Your task to perform on an android device: choose inbox layout in the gmail app Image 0: 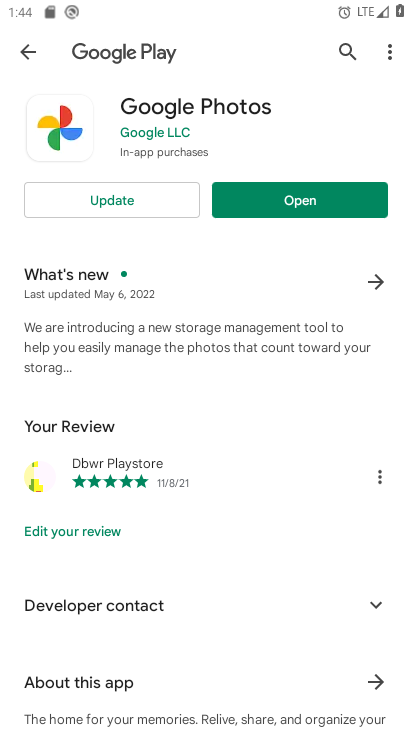
Step 0: press home button
Your task to perform on an android device: choose inbox layout in the gmail app Image 1: 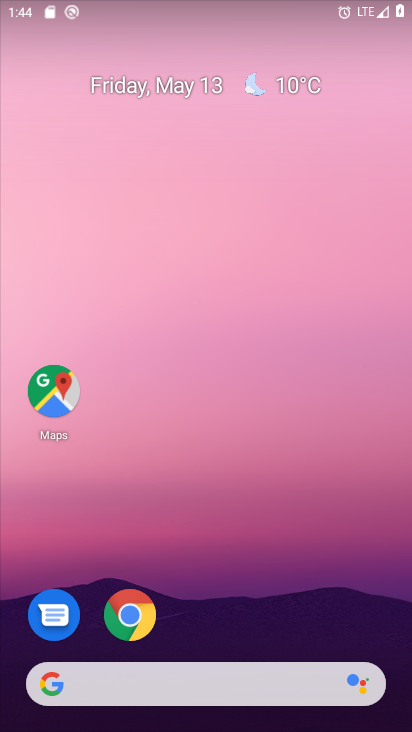
Step 1: drag from (263, 624) to (340, 45)
Your task to perform on an android device: choose inbox layout in the gmail app Image 2: 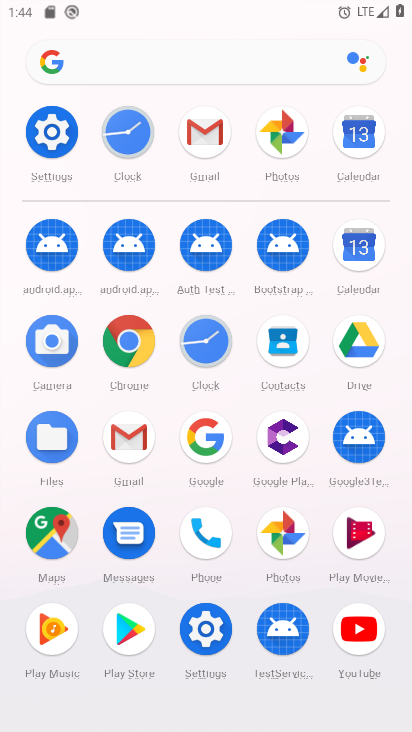
Step 2: click (211, 127)
Your task to perform on an android device: choose inbox layout in the gmail app Image 3: 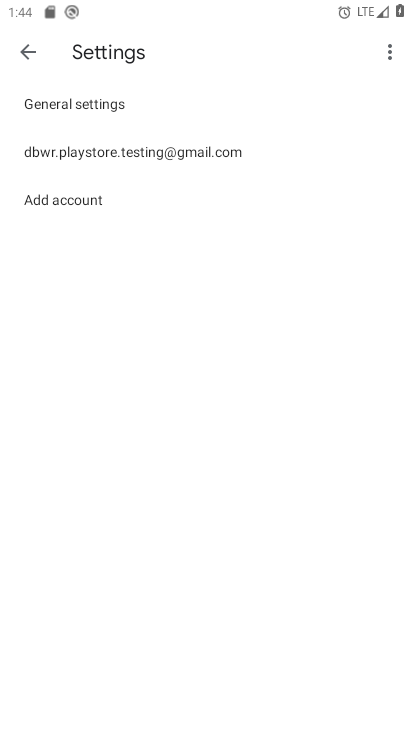
Step 3: click (159, 142)
Your task to perform on an android device: choose inbox layout in the gmail app Image 4: 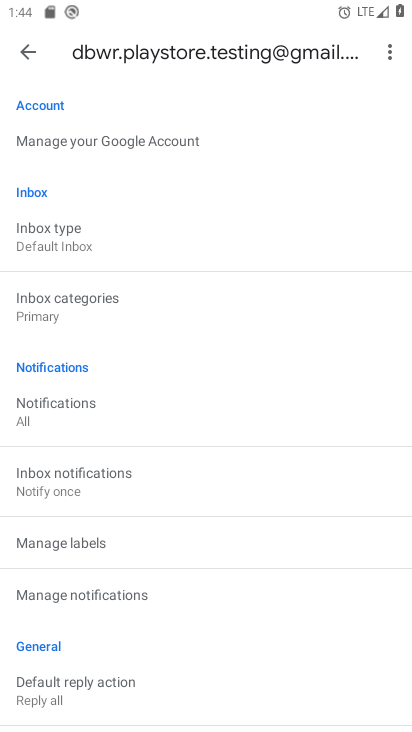
Step 4: click (74, 230)
Your task to perform on an android device: choose inbox layout in the gmail app Image 5: 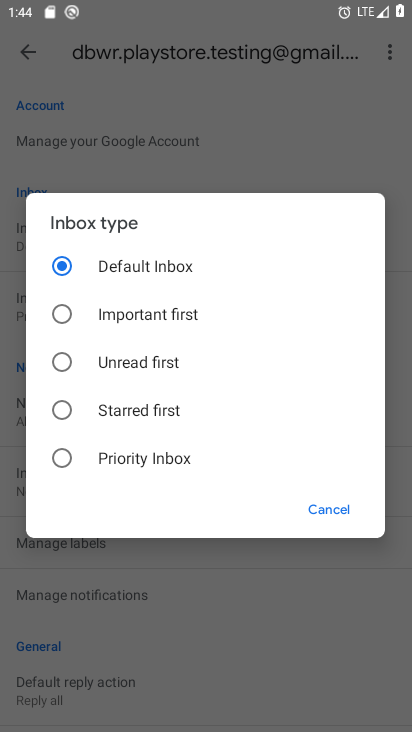
Step 5: click (58, 307)
Your task to perform on an android device: choose inbox layout in the gmail app Image 6: 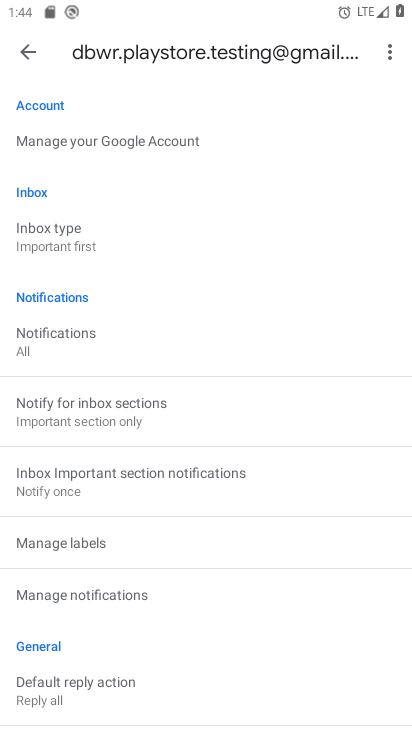
Step 6: task complete